Your task to perform on an android device: set an alarm Image 0: 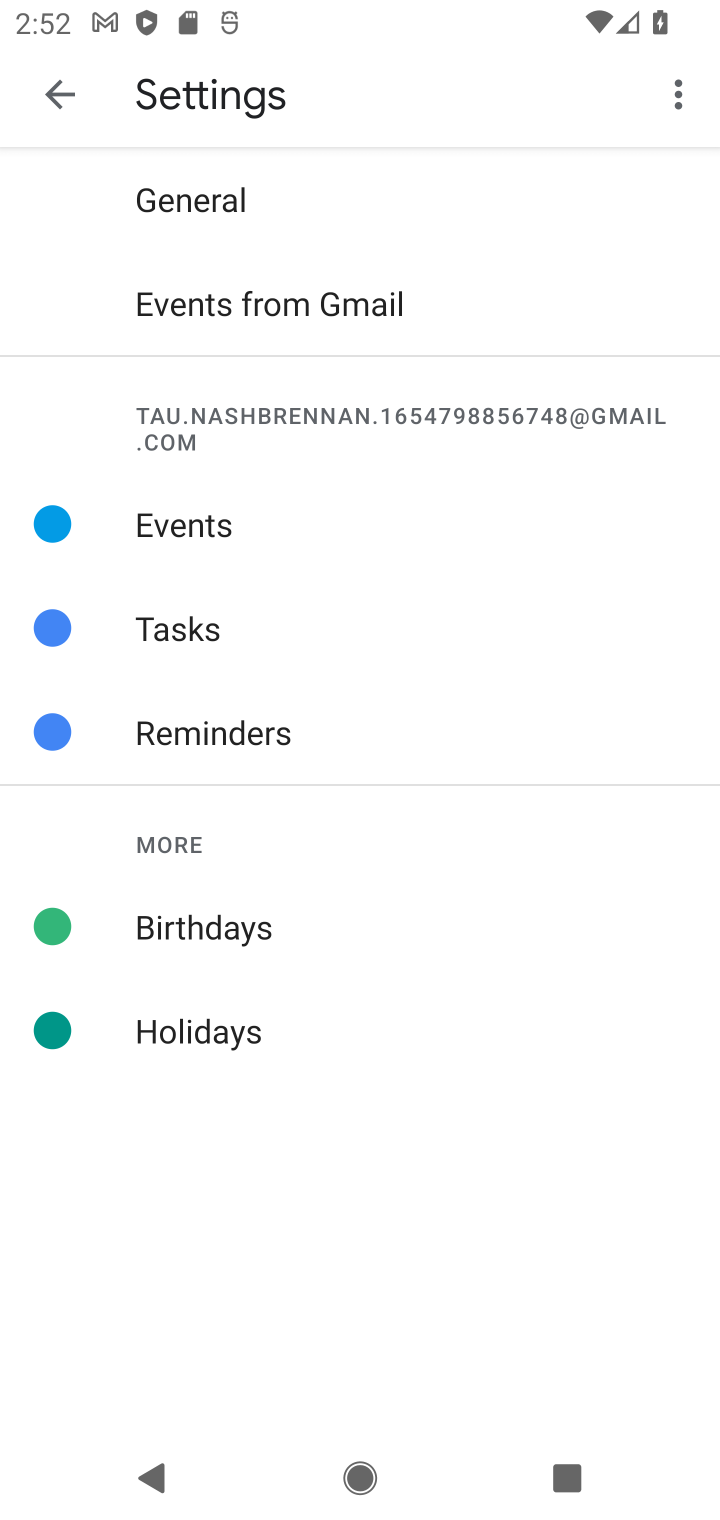
Step 0: press home button
Your task to perform on an android device: set an alarm Image 1: 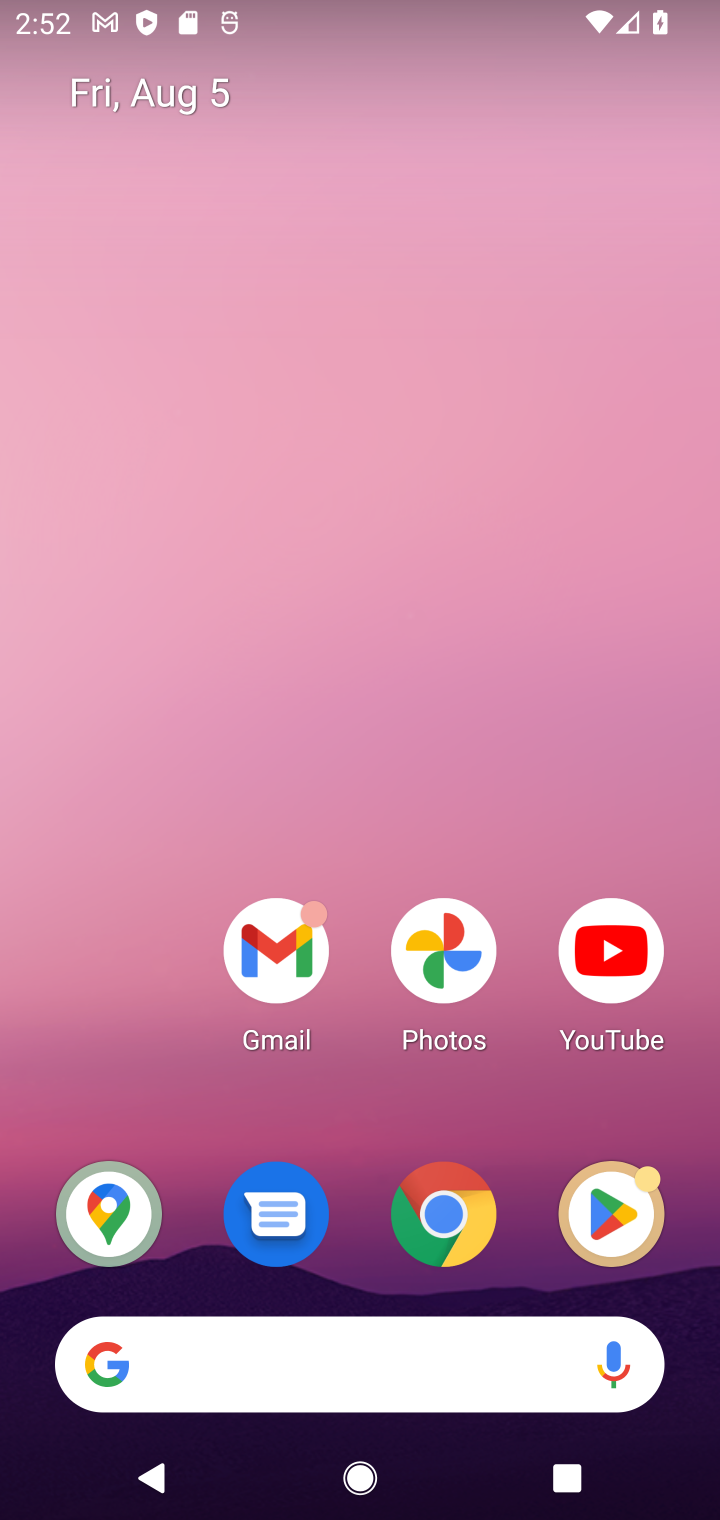
Step 1: drag from (540, 1387) to (131, 269)
Your task to perform on an android device: set an alarm Image 2: 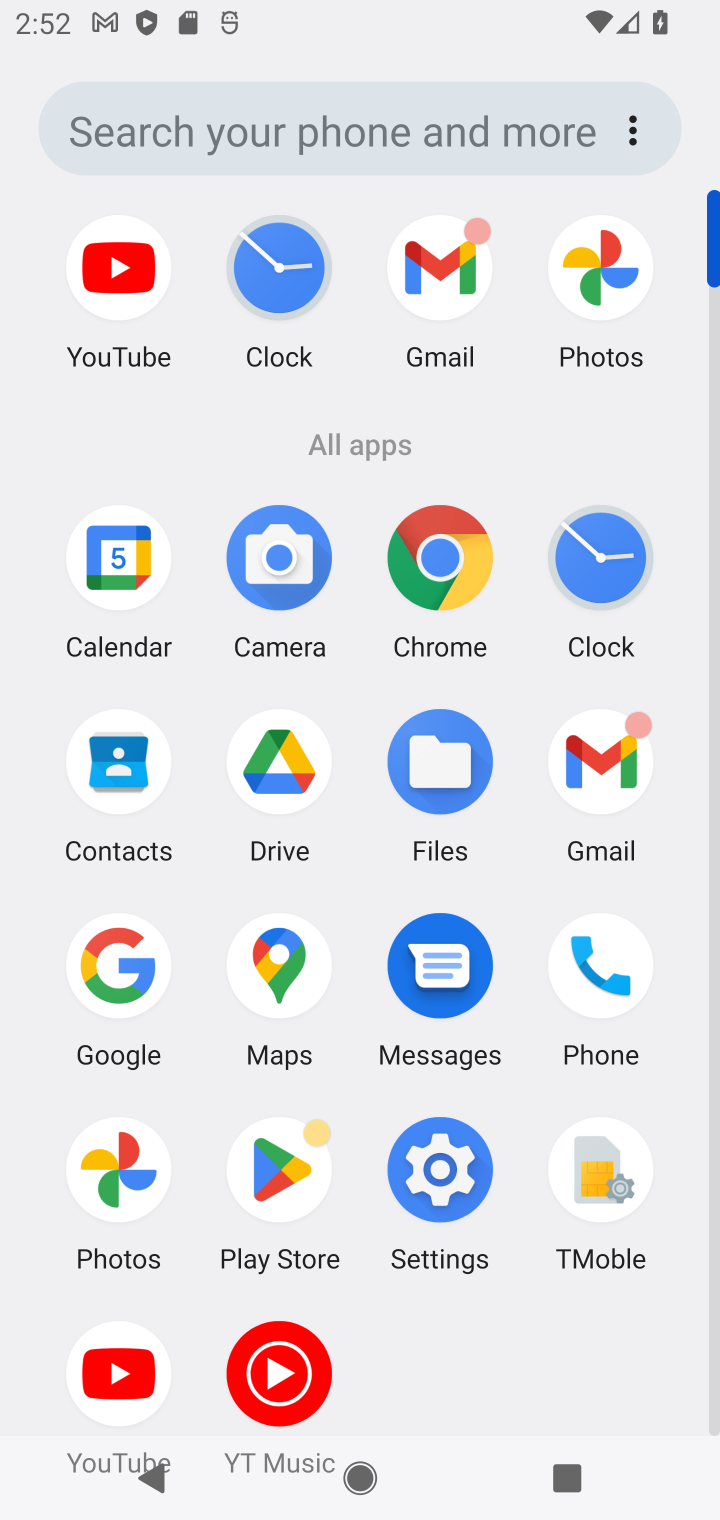
Step 2: click (272, 321)
Your task to perform on an android device: set an alarm Image 3: 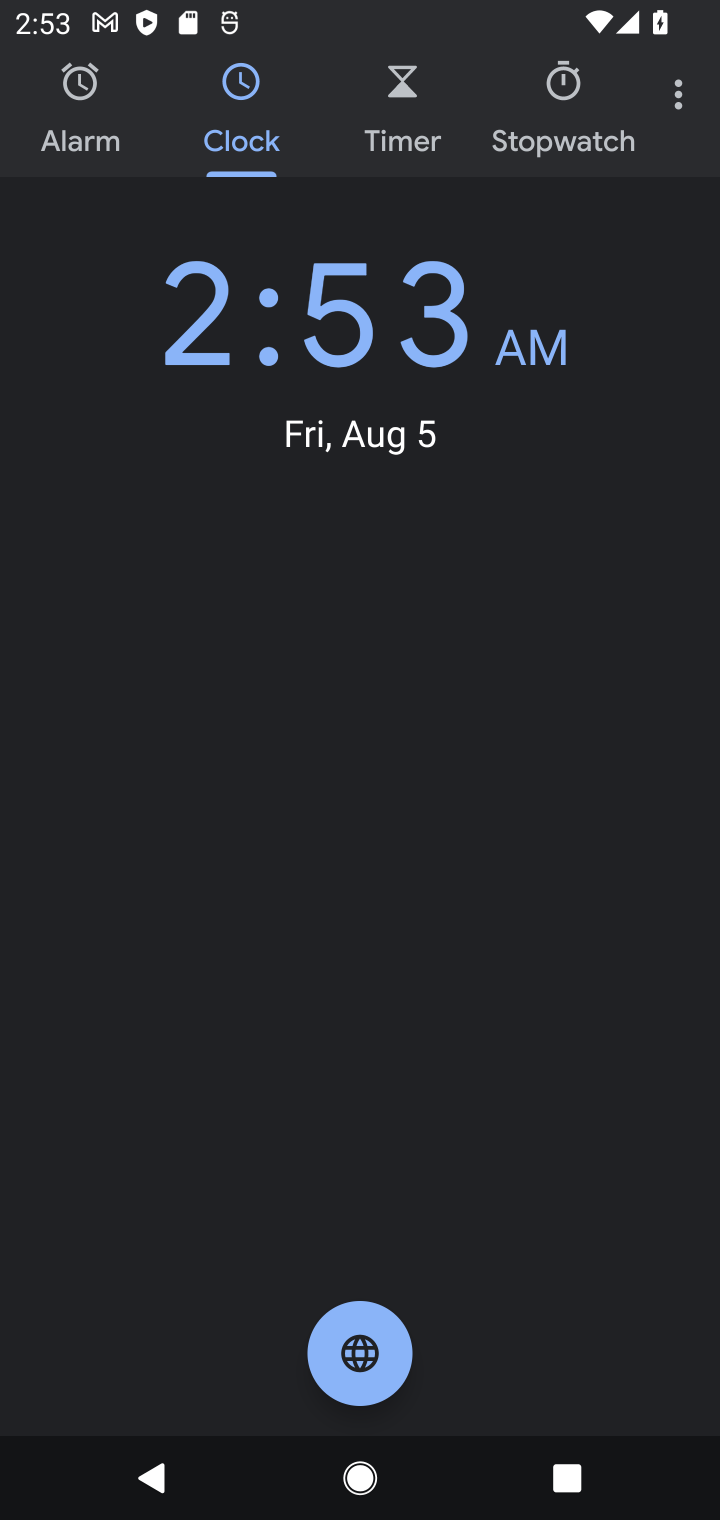
Step 3: click (75, 126)
Your task to perform on an android device: set an alarm Image 4: 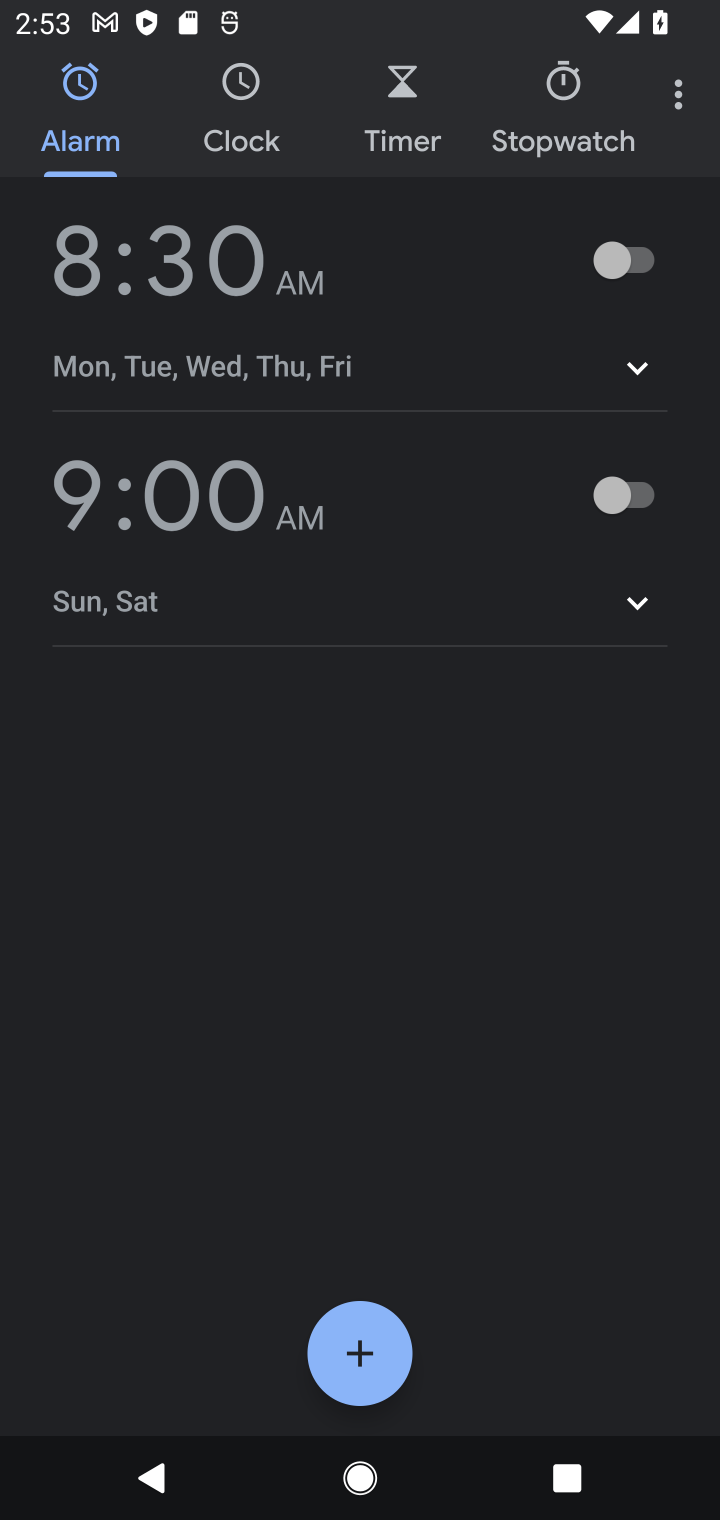
Step 4: click (613, 275)
Your task to perform on an android device: set an alarm Image 5: 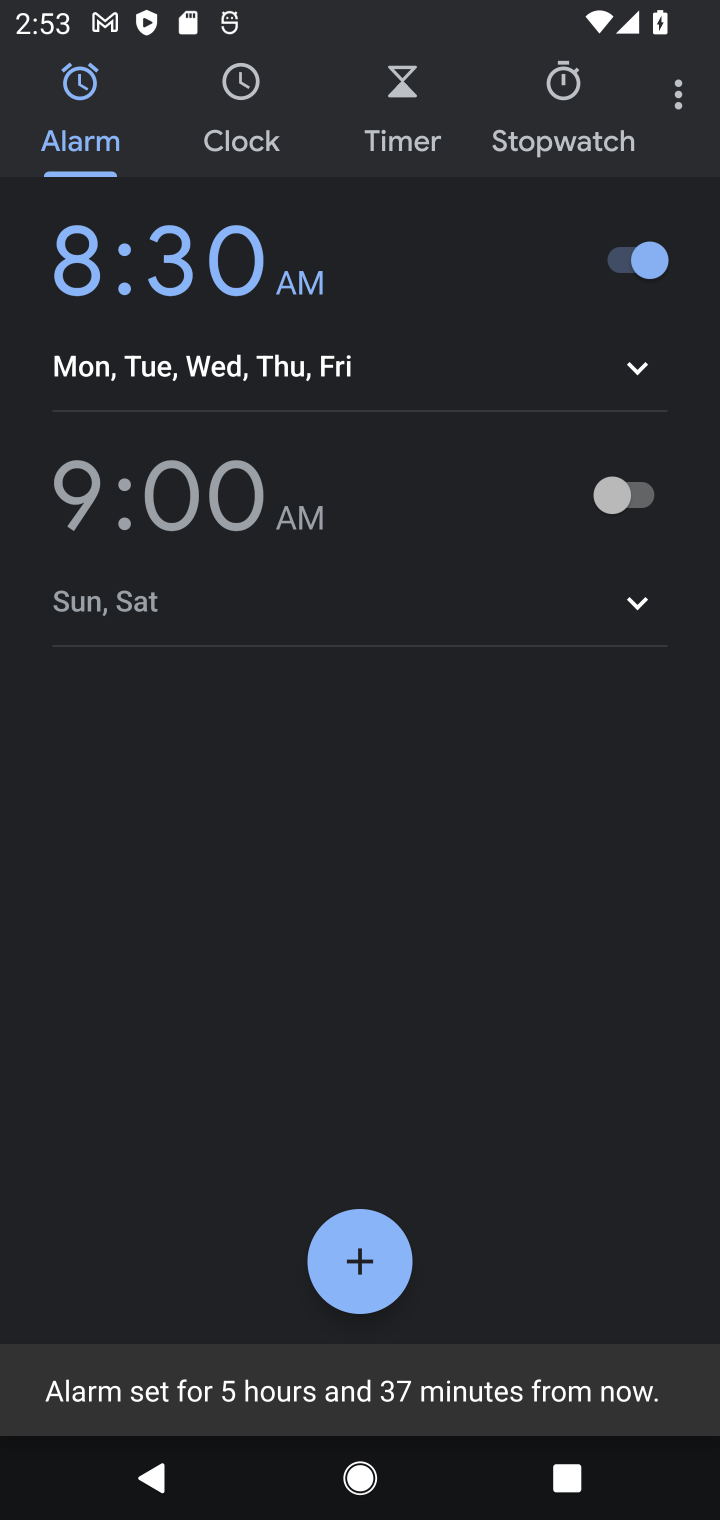
Step 5: task complete